Your task to perform on an android device: open app "Google Pay: Save, Pay, Manage" Image 0: 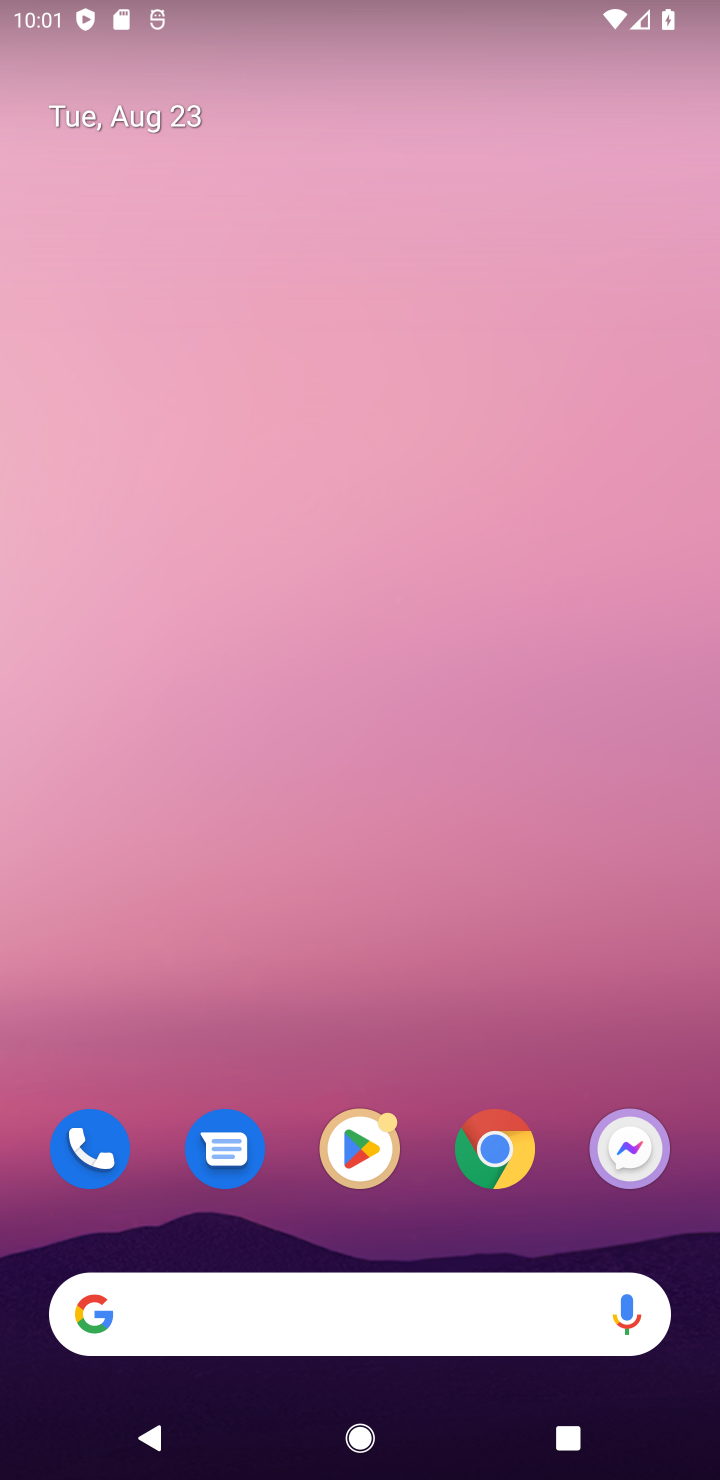
Step 0: click (347, 1193)
Your task to perform on an android device: open app "Google Pay: Save, Pay, Manage" Image 1: 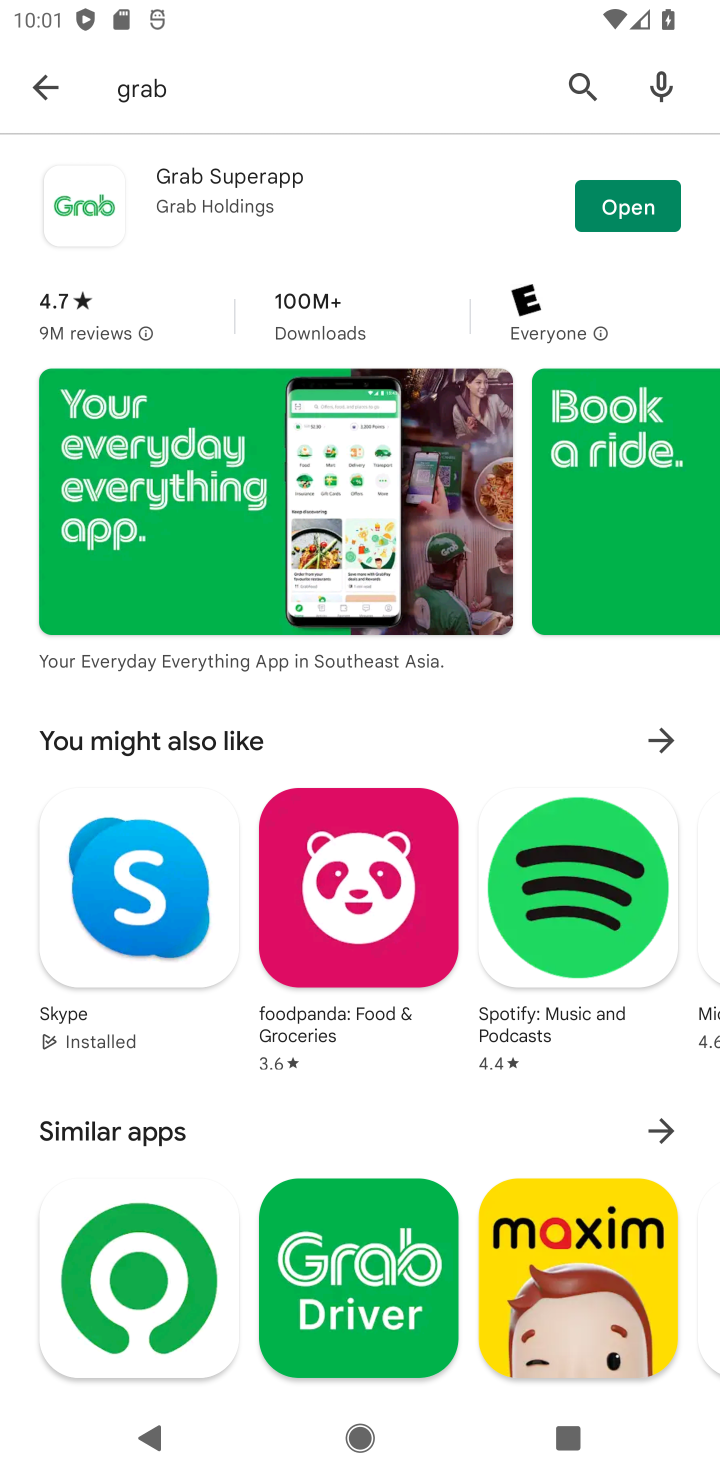
Step 1: click (567, 89)
Your task to perform on an android device: open app "Google Pay: Save, Pay, Manage" Image 2: 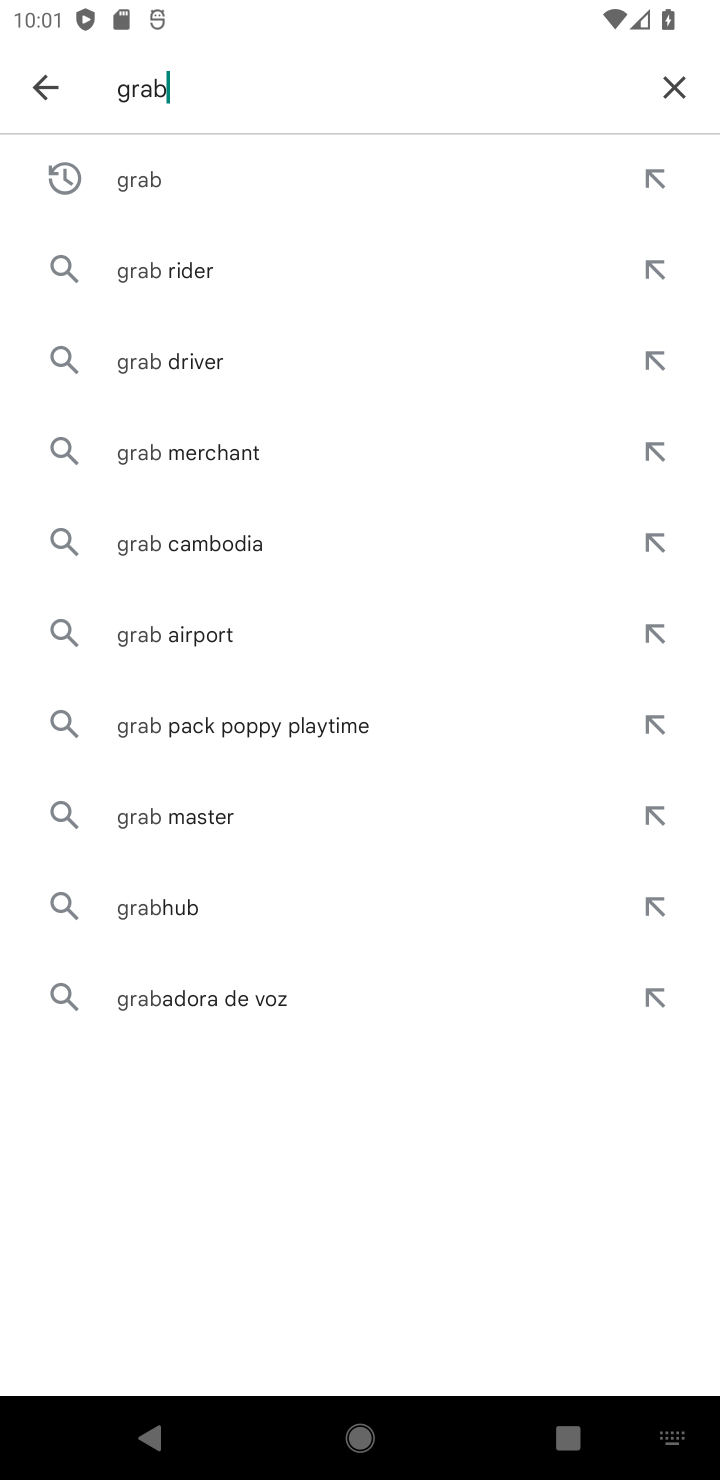
Step 2: click (660, 81)
Your task to perform on an android device: open app "Google Pay: Save, Pay, Manage" Image 3: 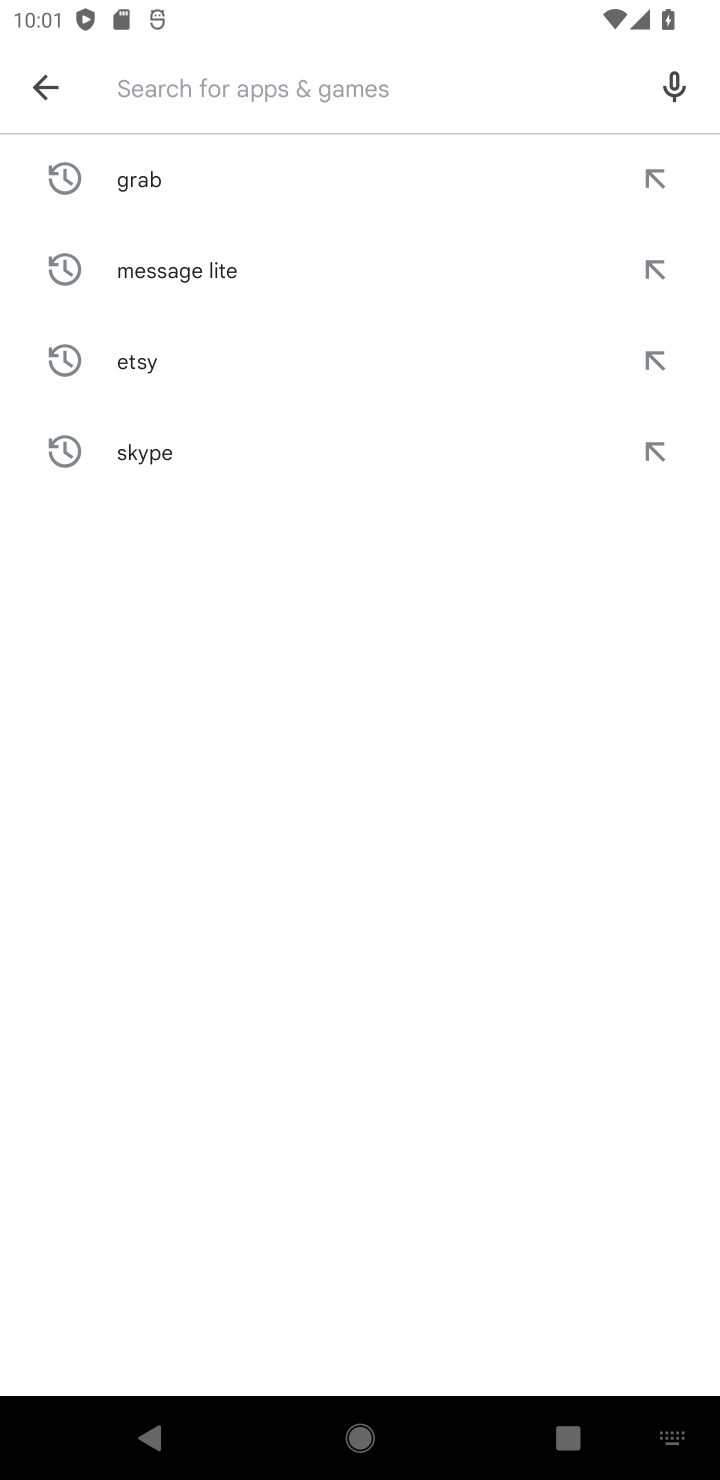
Step 3: type "google pay"
Your task to perform on an android device: open app "Google Pay: Save, Pay, Manage" Image 4: 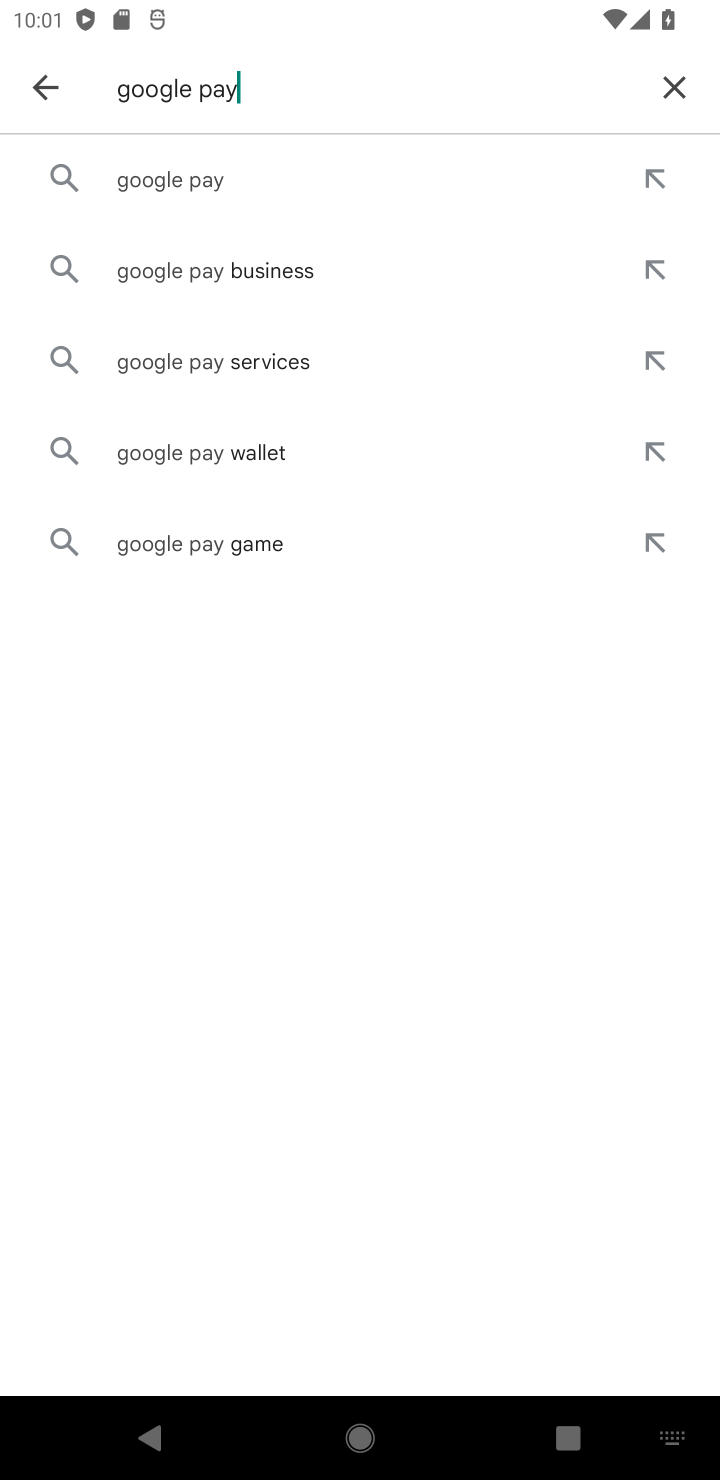
Step 4: click (355, 172)
Your task to perform on an android device: open app "Google Pay: Save, Pay, Manage" Image 5: 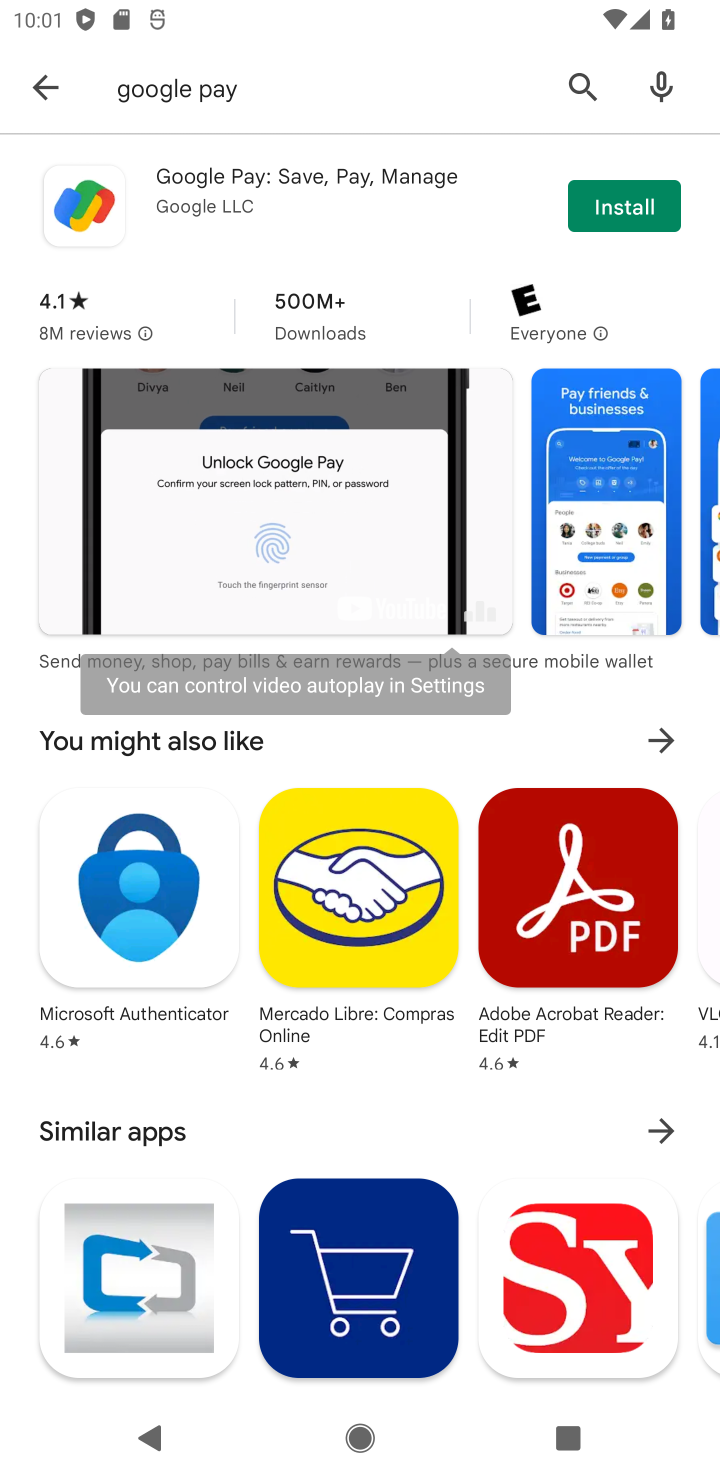
Step 5: click (576, 200)
Your task to perform on an android device: open app "Google Pay: Save, Pay, Manage" Image 6: 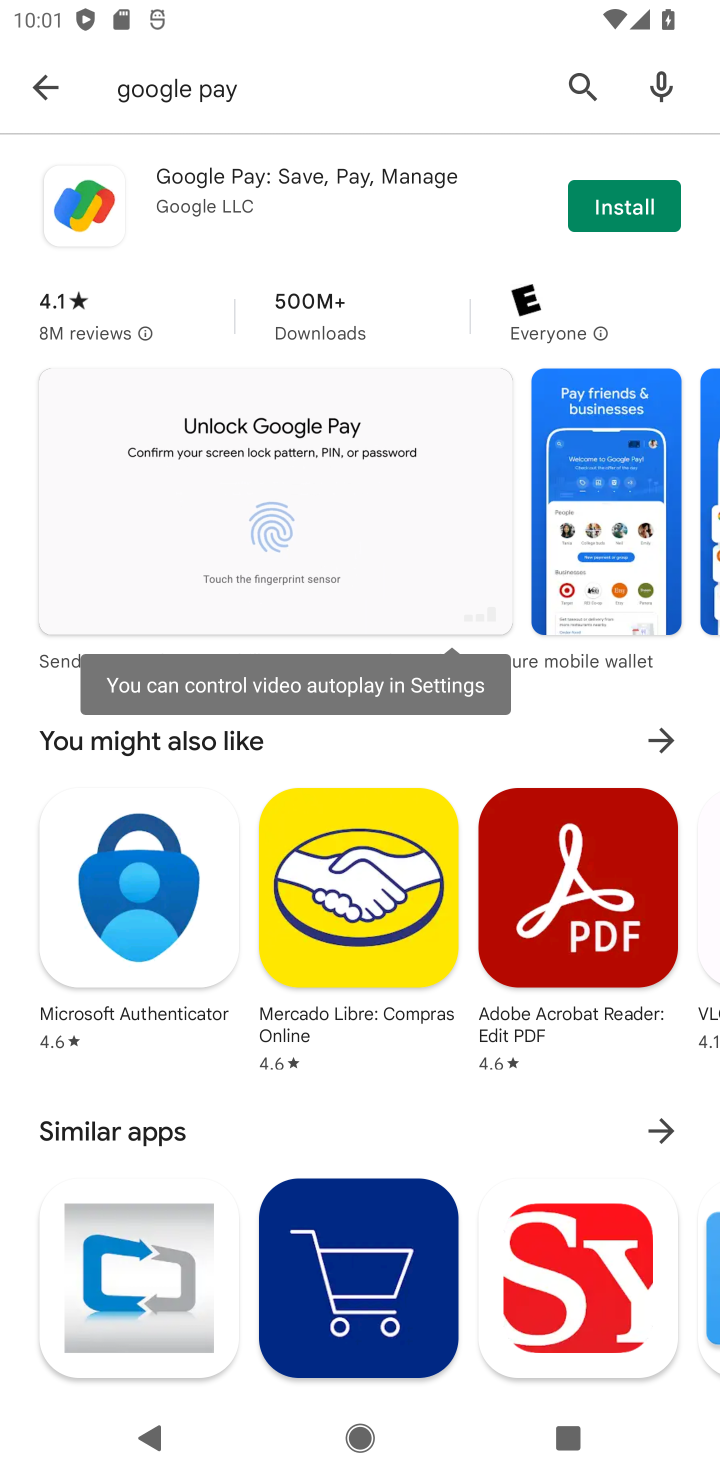
Step 6: task complete